Your task to perform on an android device: check google app version Image 0: 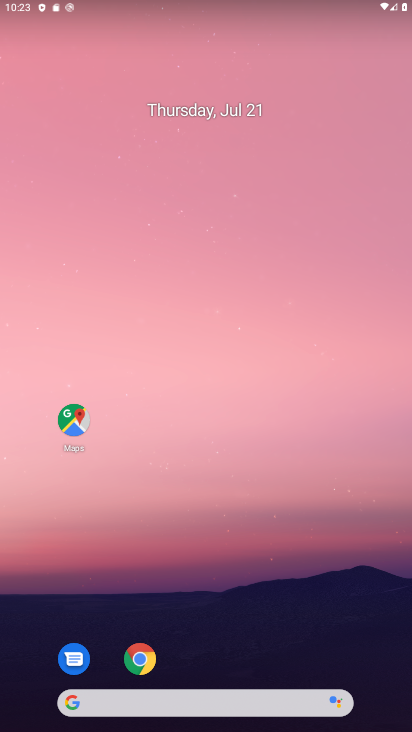
Step 0: drag from (209, 726) to (209, 204)
Your task to perform on an android device: check google app version Image 1: 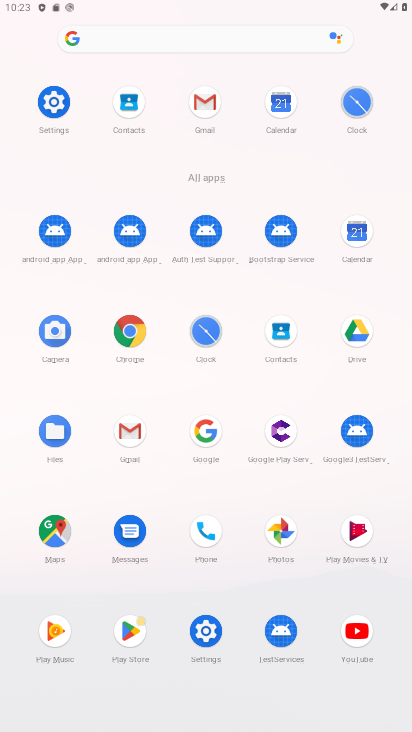
Step 1: click (204, 432)
Your task to perform on an android device: check google app version Image 2: 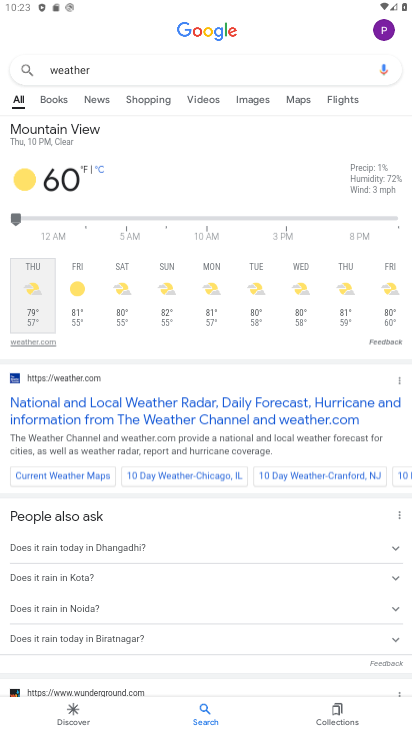
Step 2: click (385, 31)
Your task to perform on an android device: check google app version Image 3: 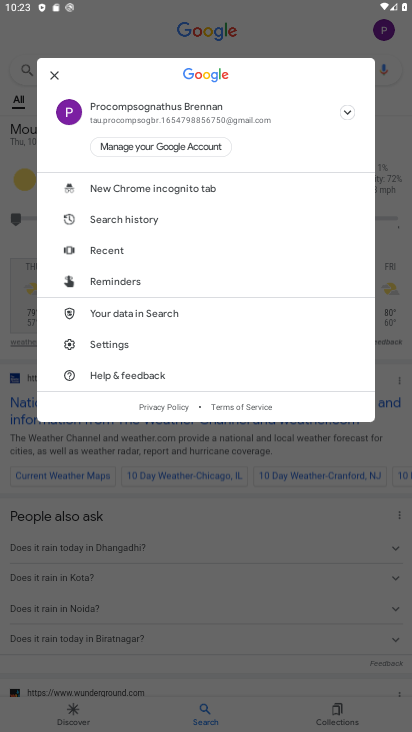
Step 3: click (111, 344)
Your task to perform on an android device: check google app version Image 4: 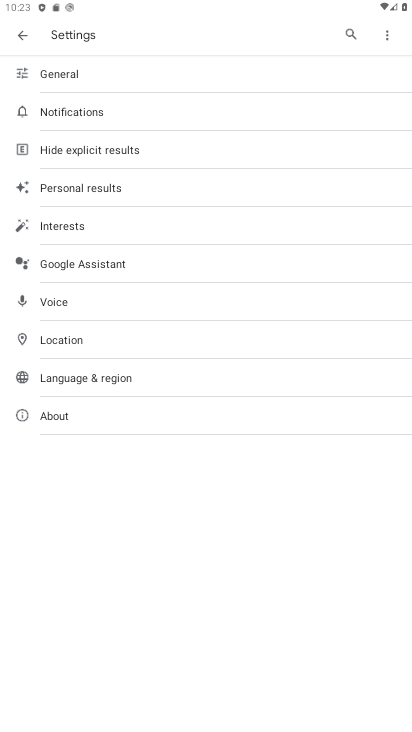
Step 4: click (53, 411)
Your task to perform on an android device: check google app version Image 5: 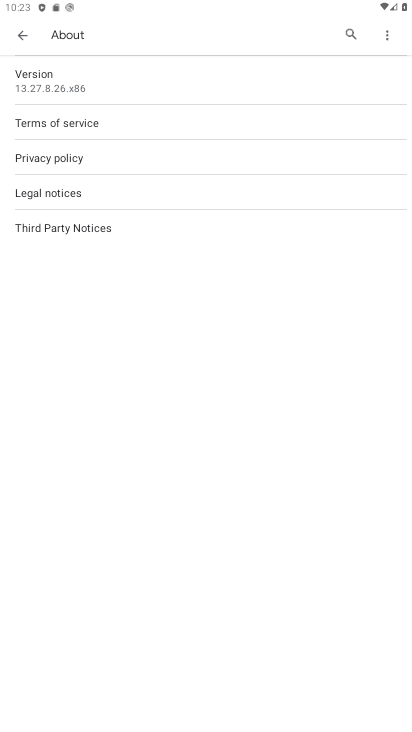
Step 5: task complete